Your task to perform on an android device: What is the recent news? Image 0: 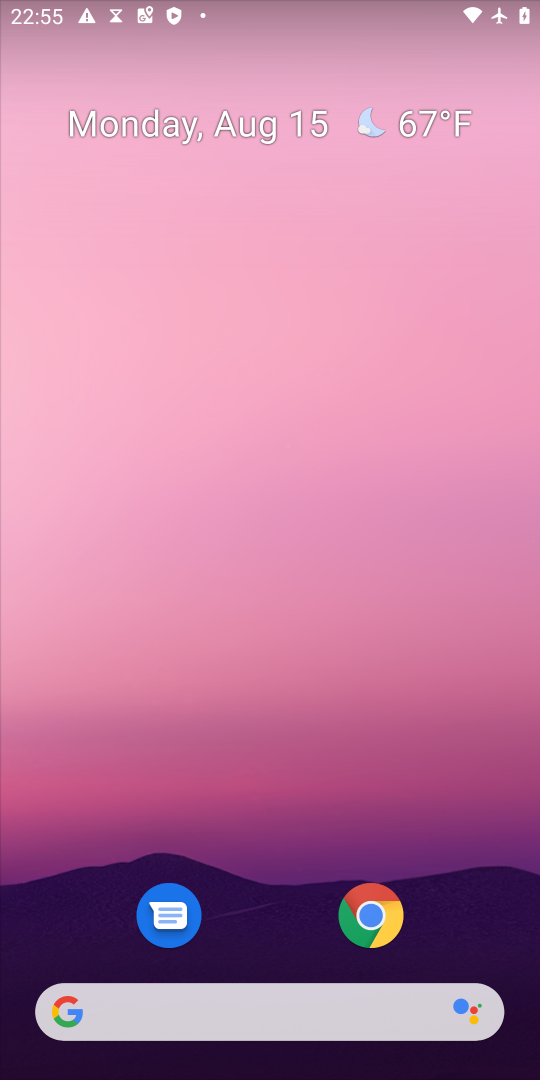
Step 0: click (53, 1007)
Your task to perform on an android device: What is the recent news? Image 1: 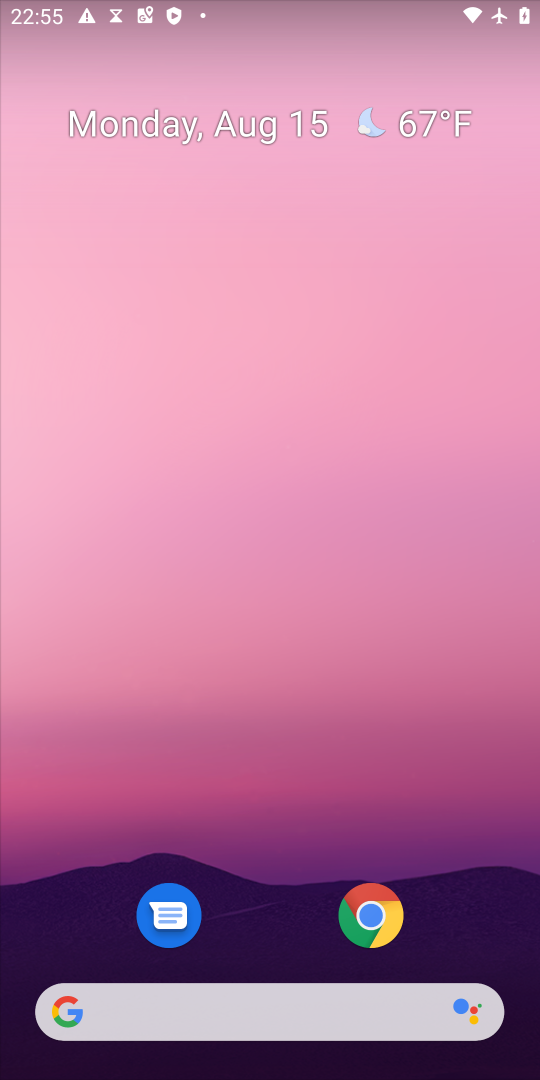
Step 1: click (72, 1007)
Your task to perform on an android device: What is the recent news? Image 2: 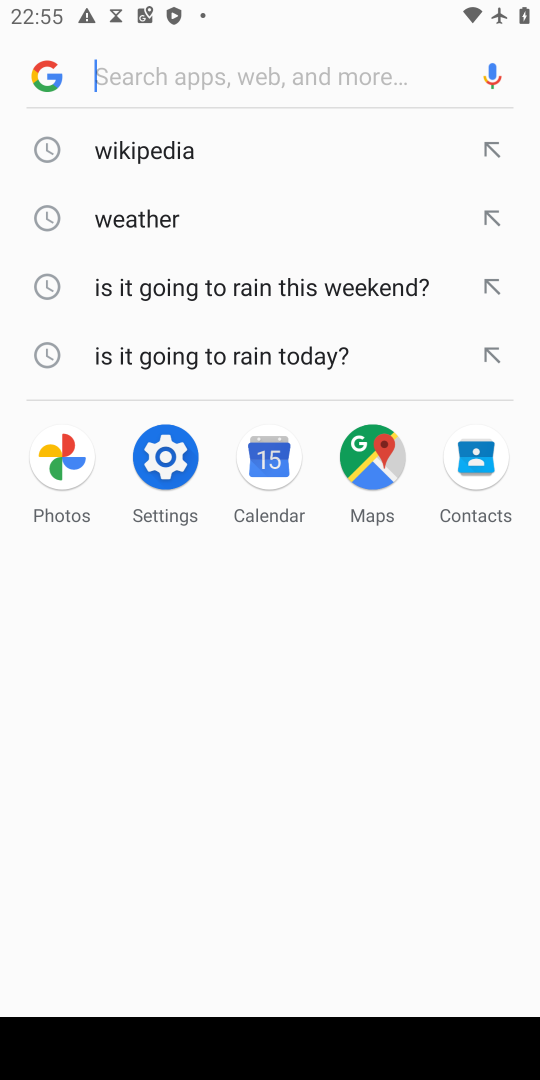
Step 2: type "recent news?"
Your task to perform on an android device: What is the recent news? Image 3: 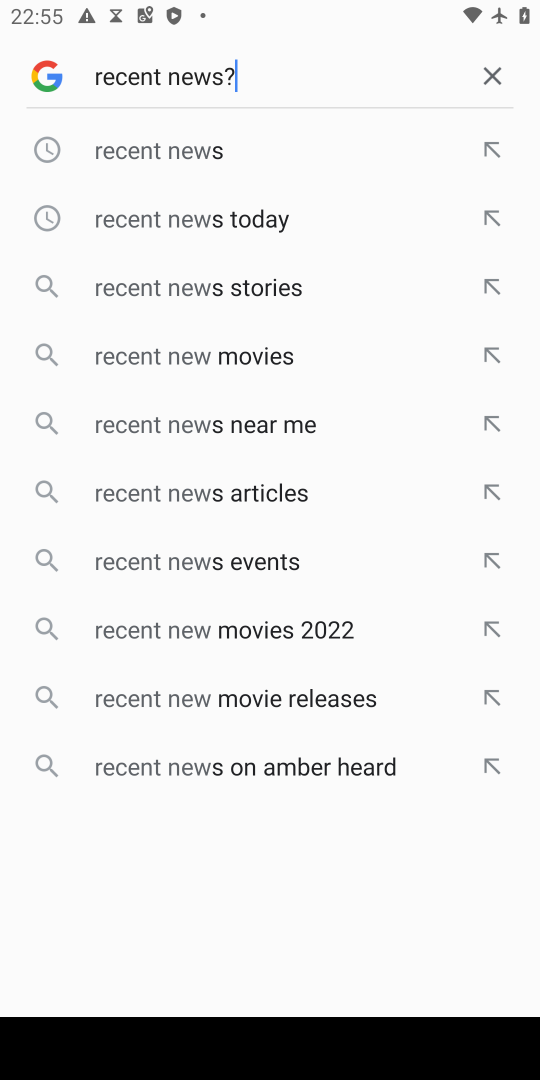
Step 3: press enter
Your task to perform on an android device: What is the recent news? Image 4: 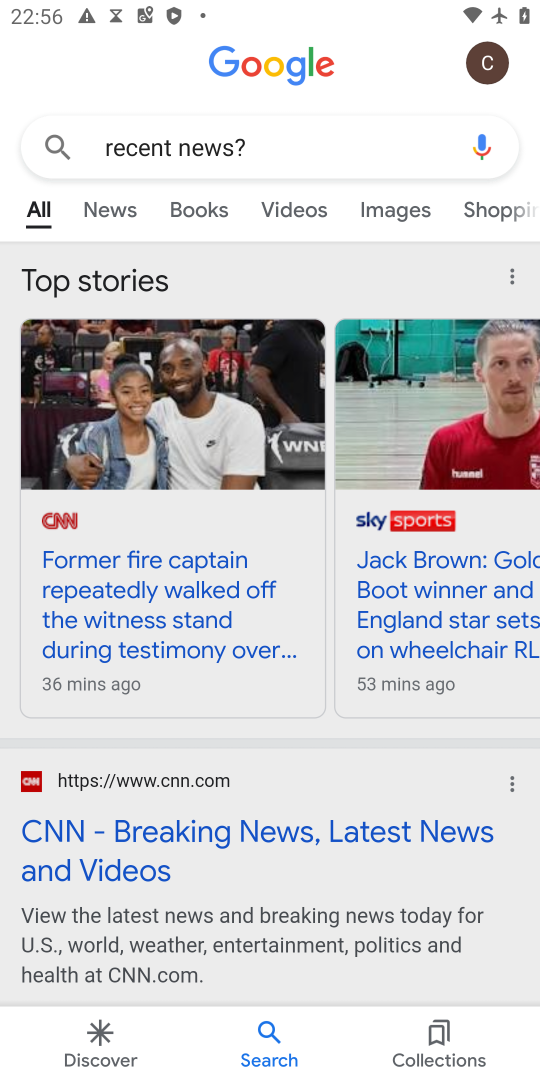
Step 4: task complete